Your task to perform on an android device: Toggle the flashlight Image 0: 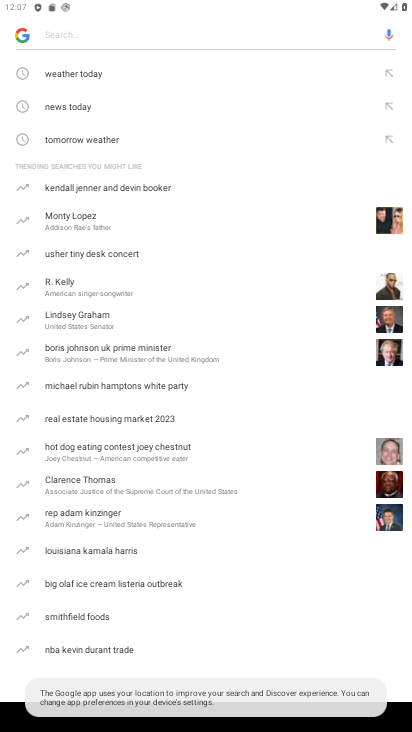
Step 0: press home button
Your task to perform on an android device: Toggle the flashlight Image 1: 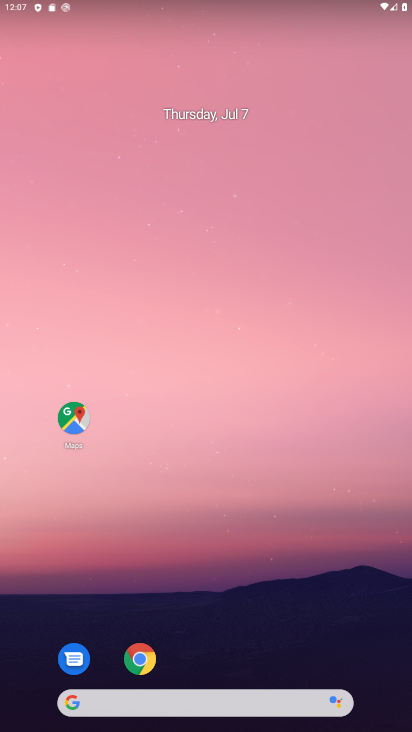
Step 1: drag from (248, 552) to (179, 191)
Your task to perform on an android device: Toggle the flashlight Image 2: 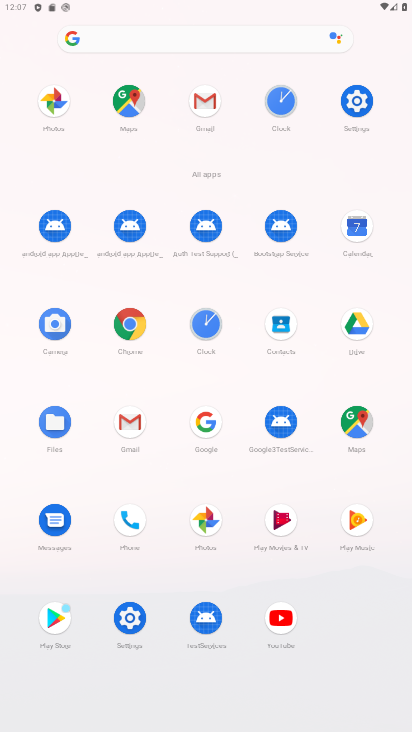
Step 2: click (356, 104)
Your task to perform on an android device: Toggle the flashlight Image 3: 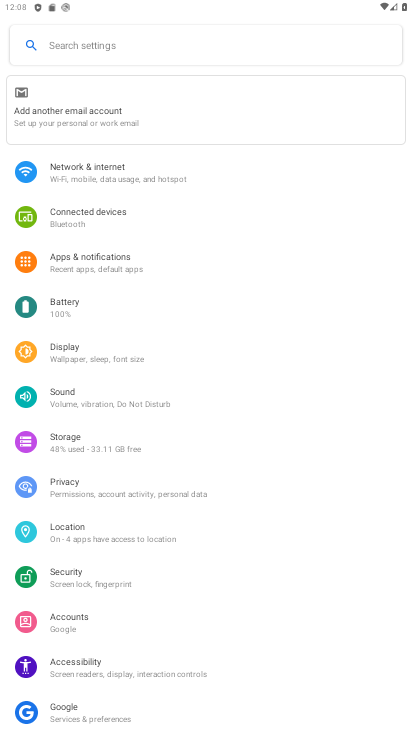
Step 3: click (62, 352)
Your task to perform on an android device: Toggle the flashlight Image 4: 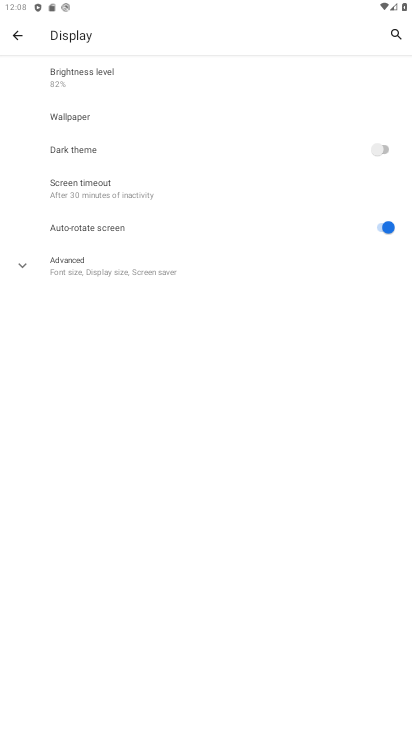
Step 4: task complete